Your task to perform on an android device: Search for Italian restaurants on Maps Image 0: 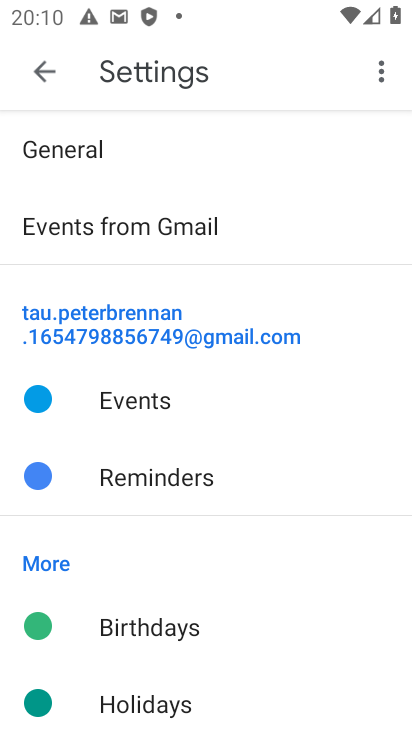
Step 0: press home button
Your task to perform on an android device: Search for Italian restaurants on Maps Image 1: 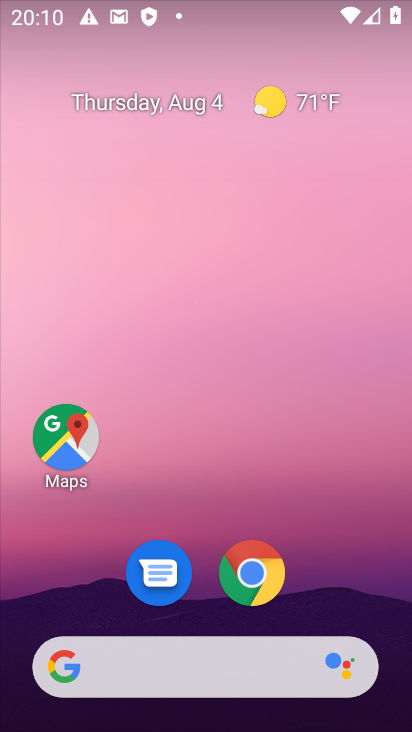
Step 1: click (57, 427)
Your task to perform on an android device: Search for Italian restaurants on Maps Image 2: 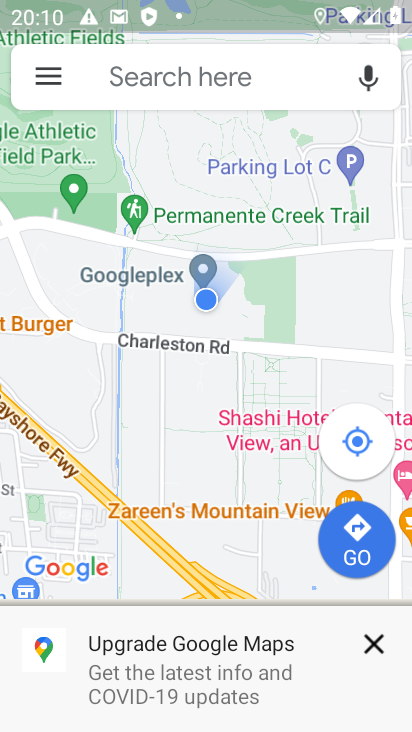
Step 2: click (231, 79)
Your task to perform on an android device: Search for Italian restaurants on Maps Image 3: 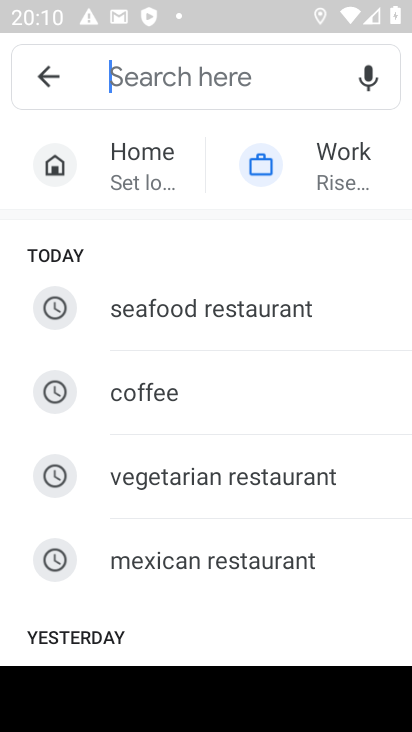
Step 3: type "italian restaurants"
Your task to perform on an android device: Search for Italian restaurants on Maps Image 4: 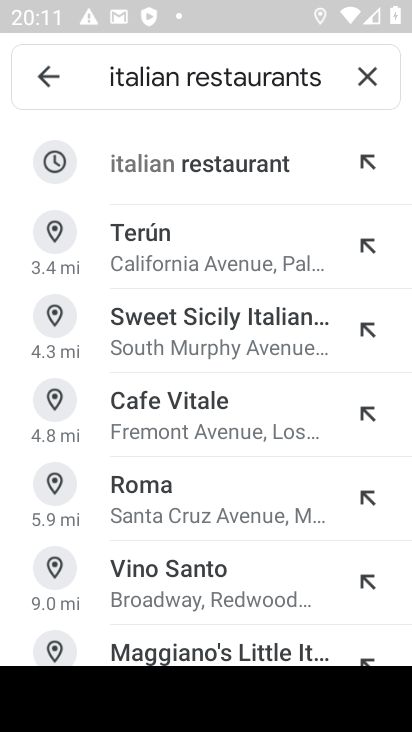
Step 4: click (221, 145)
Your task to perform on an android device: Search for Italian restaurants on Maps Image 5: 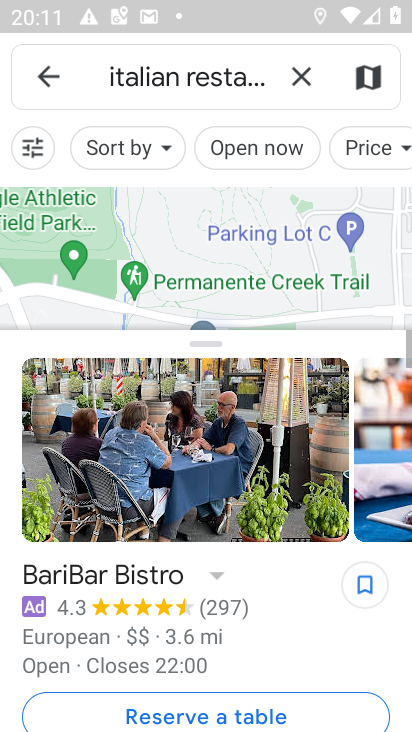
Step 5: task complete